Your task to perform on an android device: Clear the shopping cart on bestbuy.com. Add usb-c to the cart on bestbuy.com Image 0: 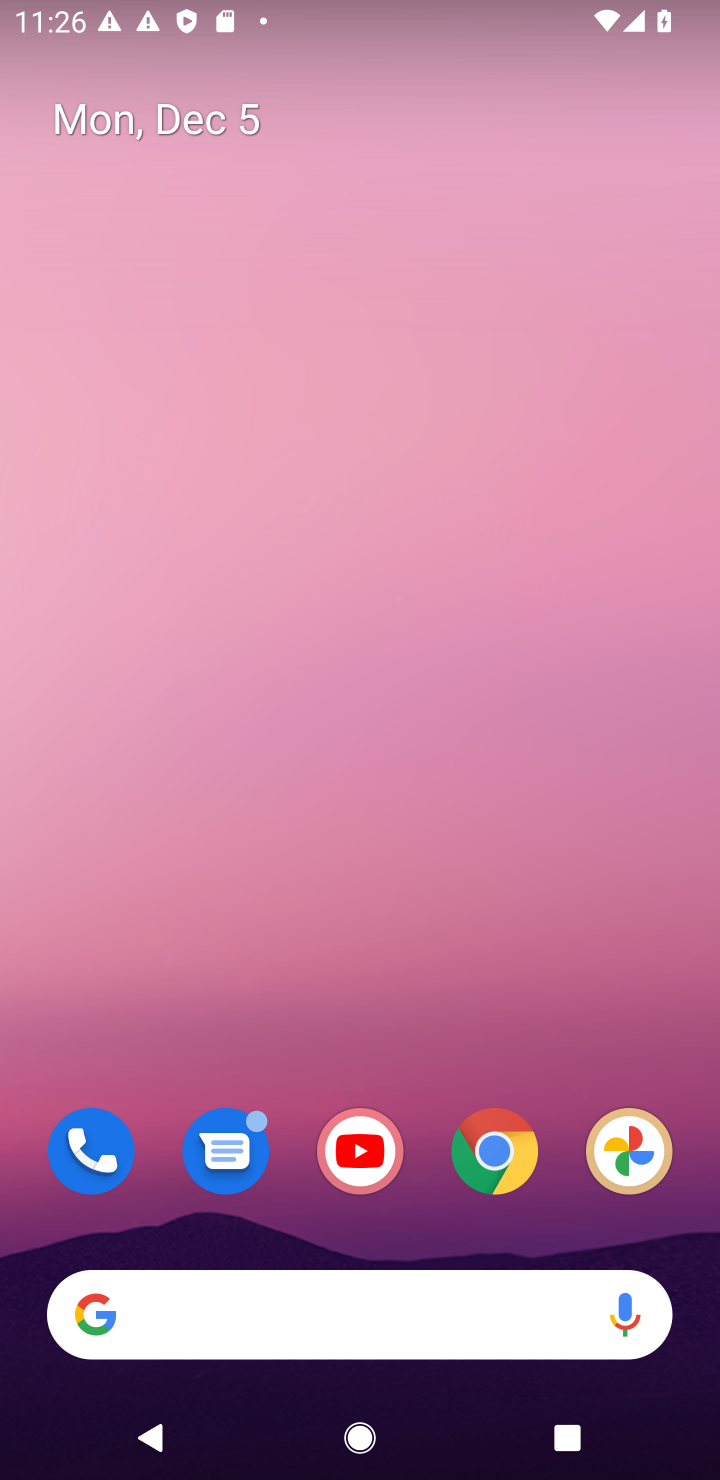
Step 0: click (498, 1147)
Your task to perform on an android device: Clear the shopping cart on bestbuy.com. Add usb-c to the cart on bestbuy.com Image 1: 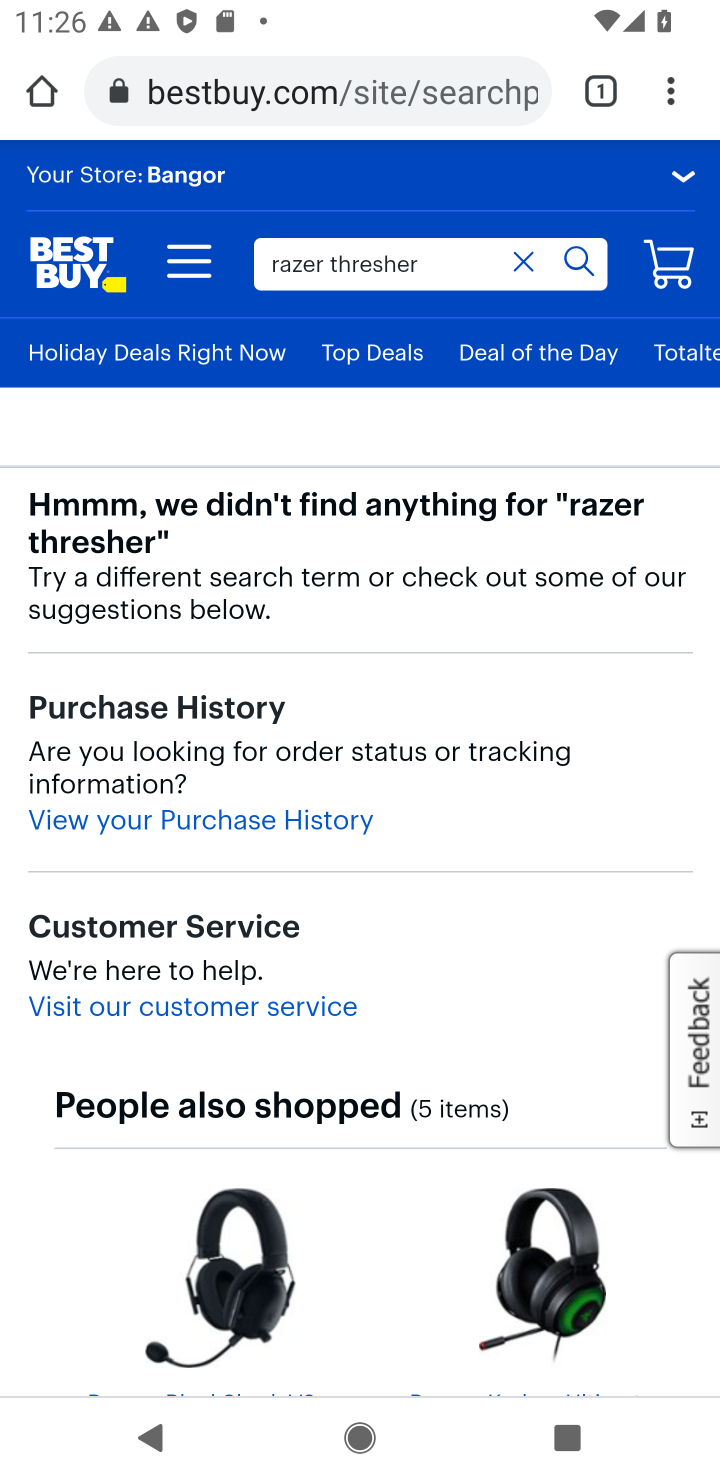
Step 1: click (681, 269)
Your task to perform on an android device: Clear the shopping cart on bestbuy.com. Add usb-c to the cart on bestbuy.com Image 2: 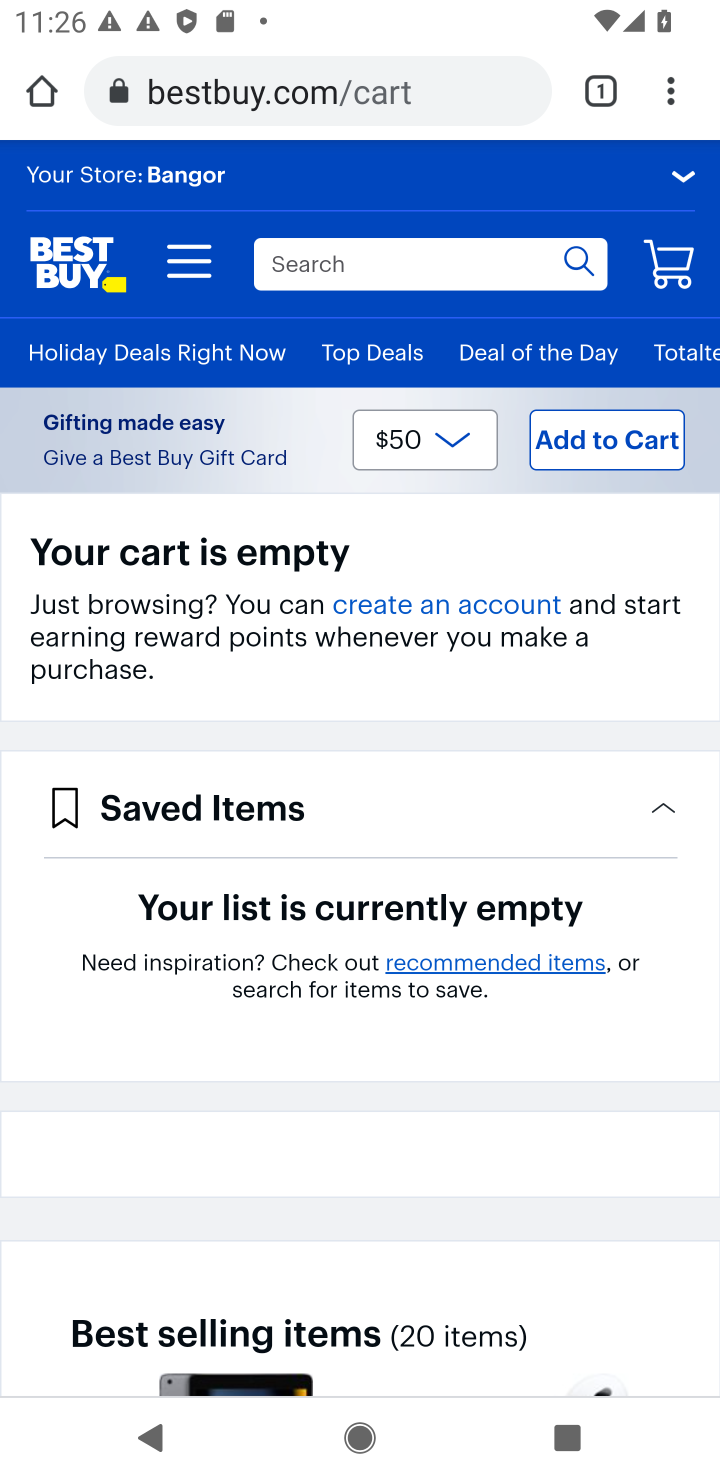
Step 2: click (330, 260)
Your task to perform on an android device: Clear the shopping cart on bestbuy.com. Add usb-c to the cart on bestbuy.com Image 3: 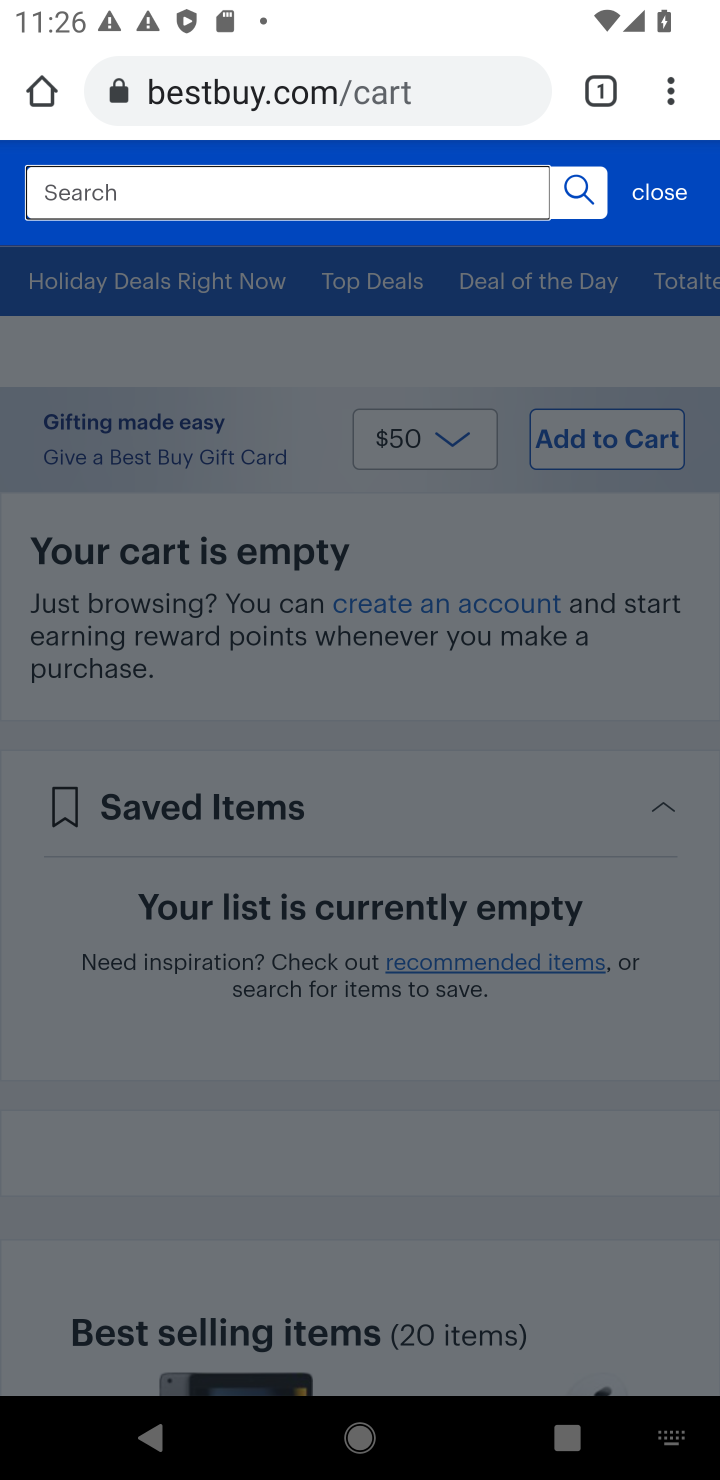
Step 3: type "usb-c "
Your task to perform on an android device: Clear the shopping cart on bestbuy.com. Add usb-c to the cart on bestbuy.com Image 4: 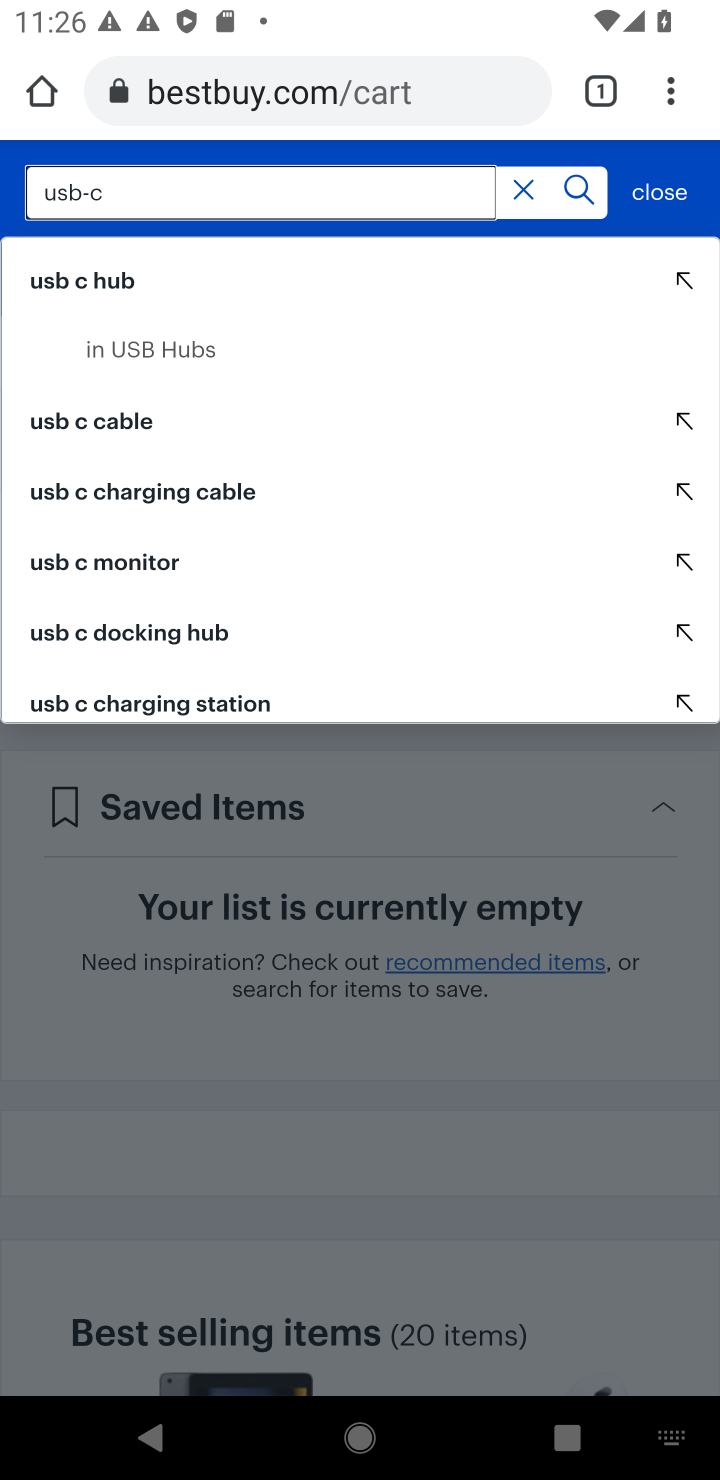
Step 4: click (590, 187)
Your task to perform on an android device: Clear the shopping cart on bestbuy.com. Add usb-c to the cart on bestbuy.com Image 5: 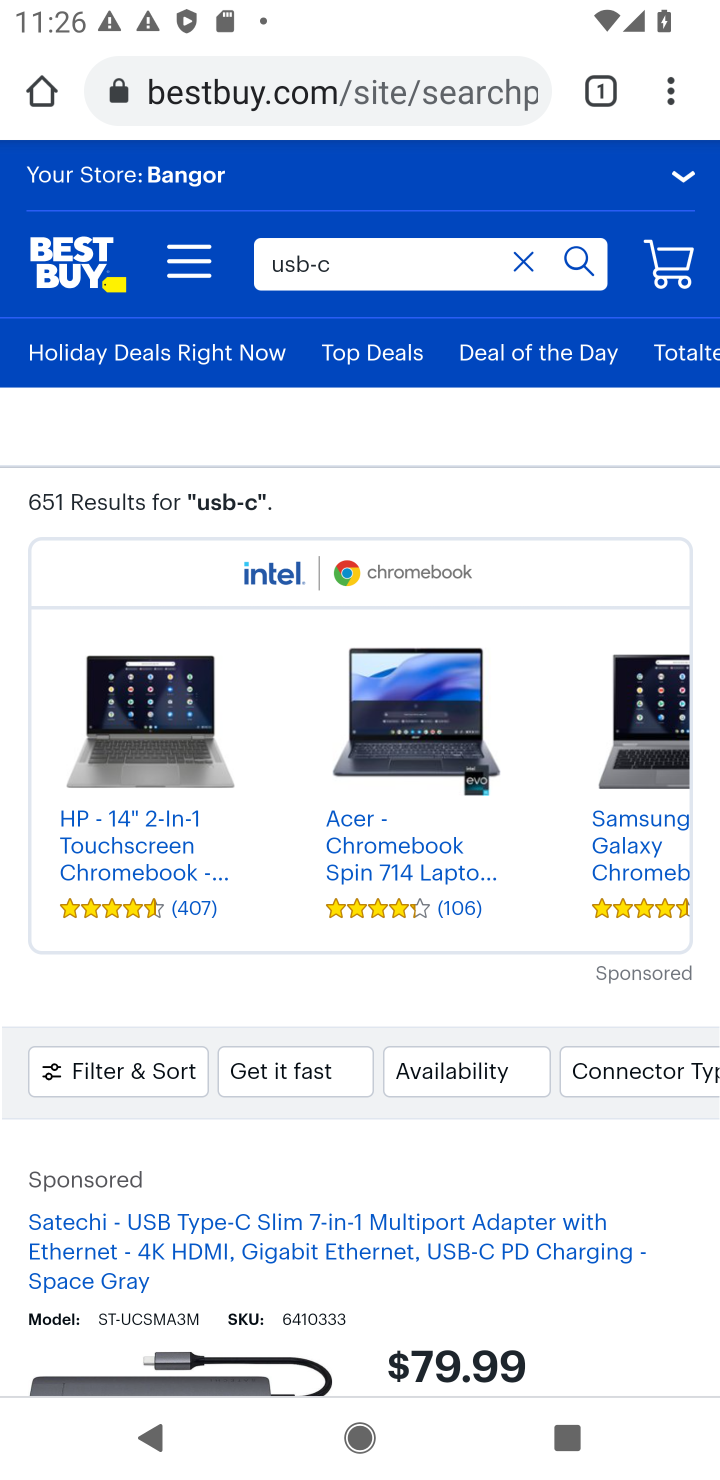
Step 5: drag from (254, 868) to (262, 500)
Your task to perform on an android device: Clear the shopping cart on bestbuy.com. Add usb-c to the cart on bestbuy.com Image 6: 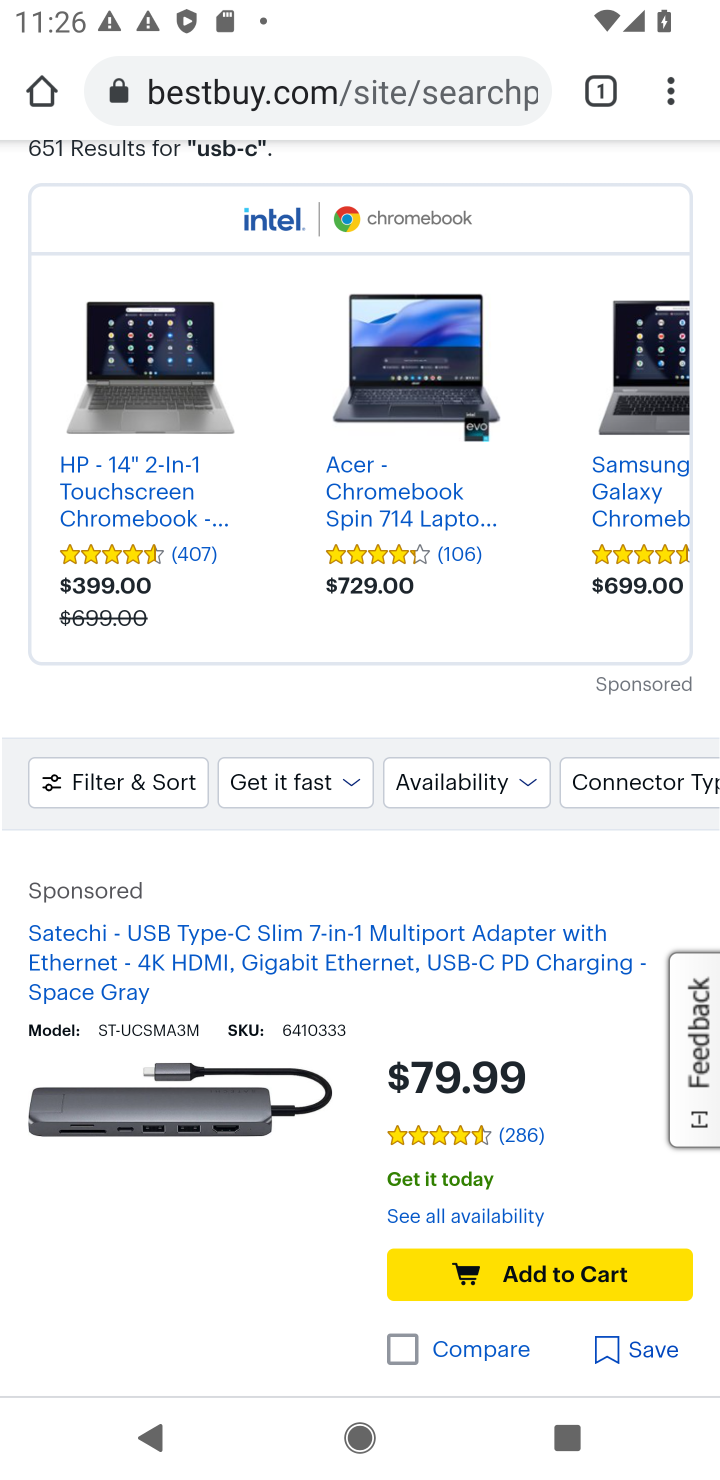
Step 6: click (515, 1265)
Your task to perform on an android device: Clear the shopping cart on bestbuy.com. Add usb-c to the cart on bestbuy.com Image 7: 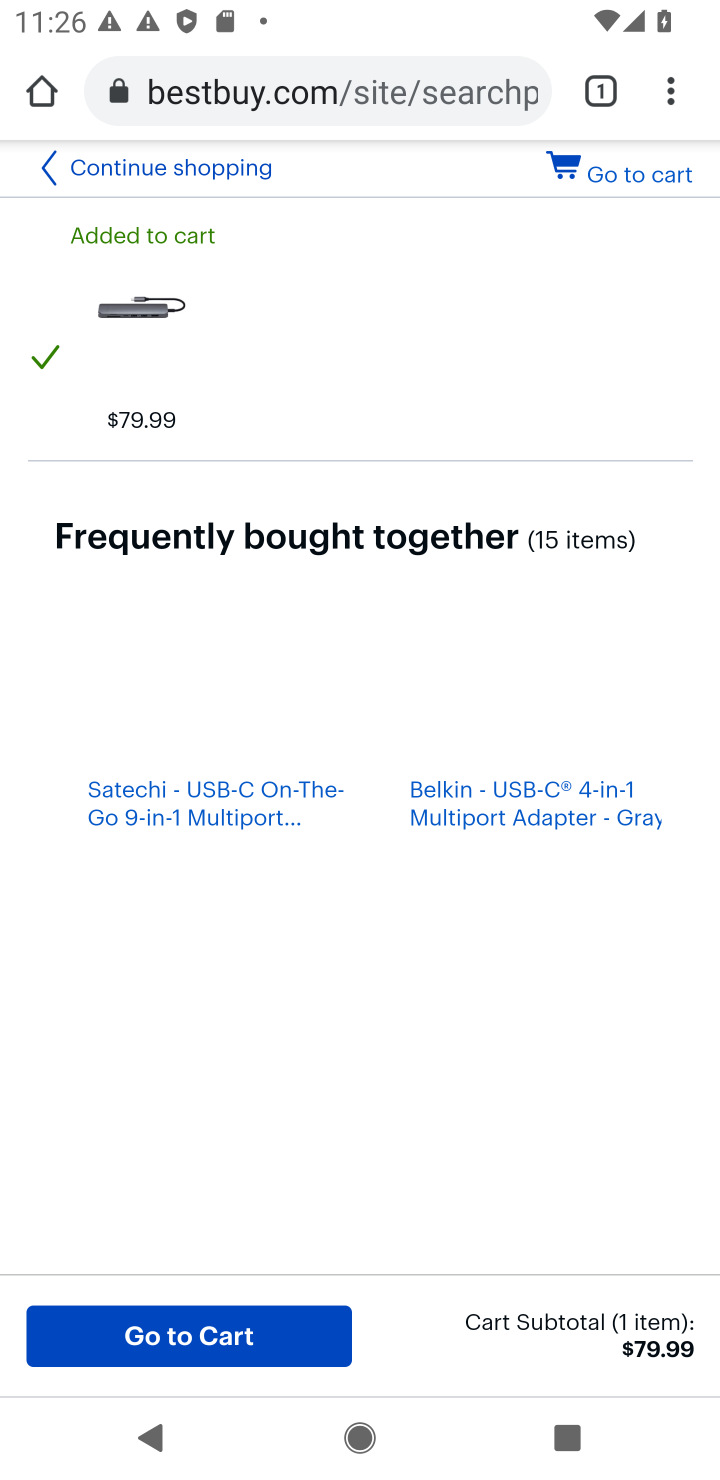
Step 7: task complete